Your task to perform on an android device: check data usage Image 0: 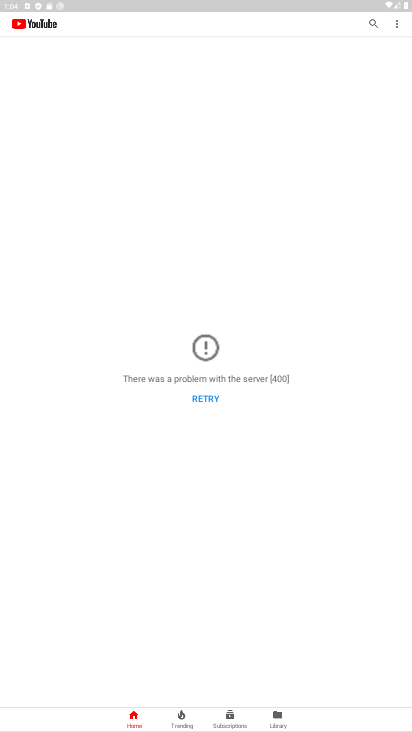
Step 0: press home button
Your task to perform on an android device: check data usage Image 1: 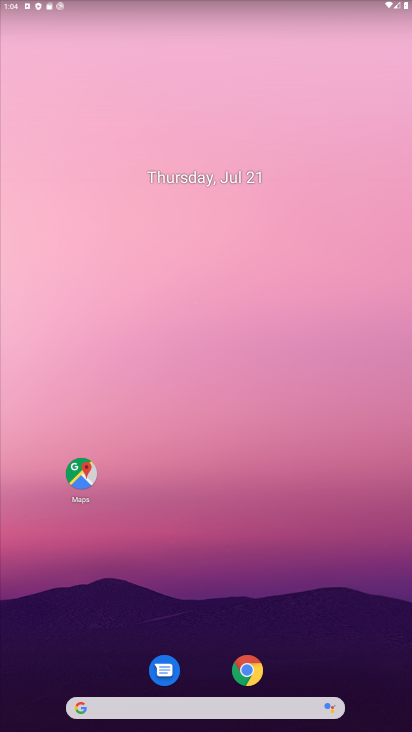
Step 1: drag from (202, 460) to (179, 115)
Your task to perform on an android device: check data usage Image 2: 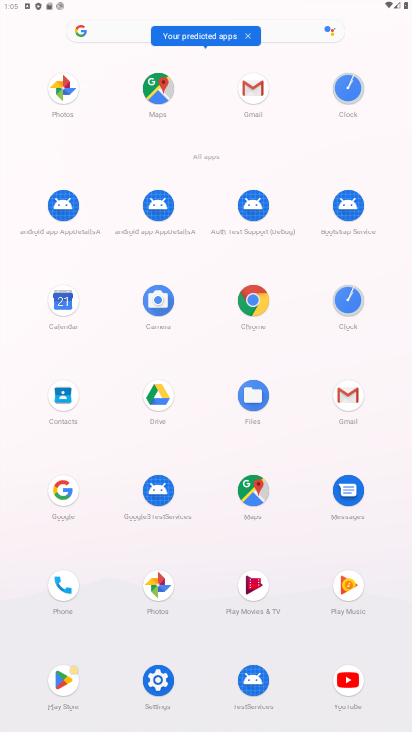
Step 2: click (152, 685)
Your task to perform on an android device: check data usage Image 3: 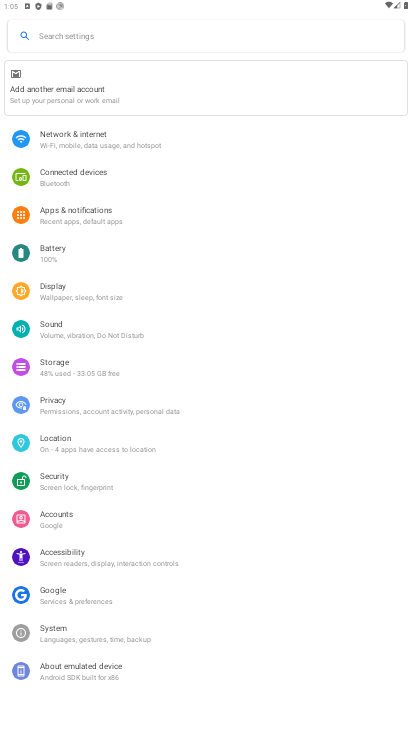
Step 3: click (155, 135)
Your task to perform on an android device: check data usage Image 4: 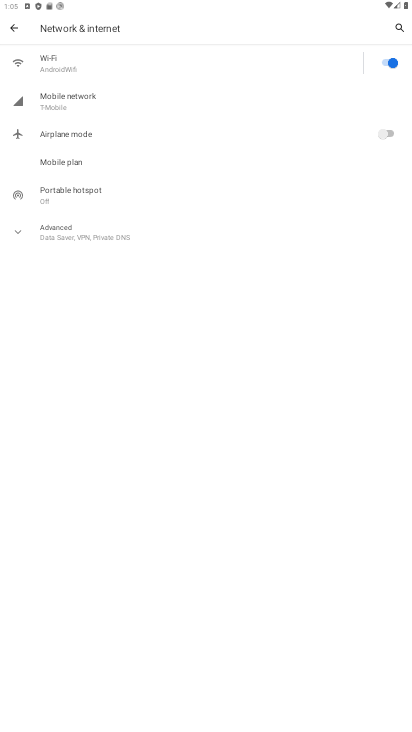
Step 4: click (95, 101)
Your task to perform on an android device: check data usage Image 5: 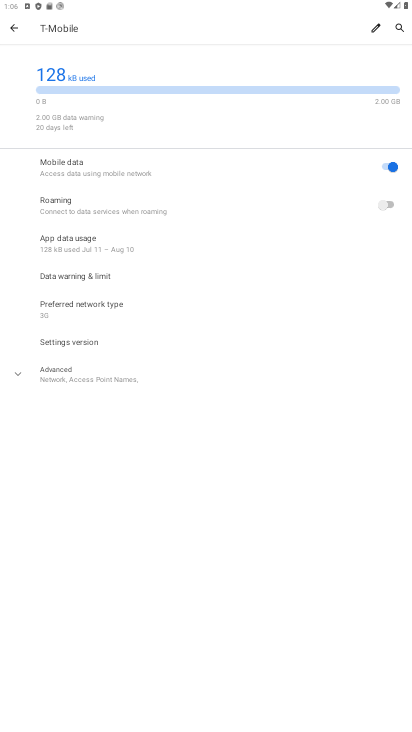
Step 5: click (116, 248)
Your task to perform on an android device: check data usage Image 6: 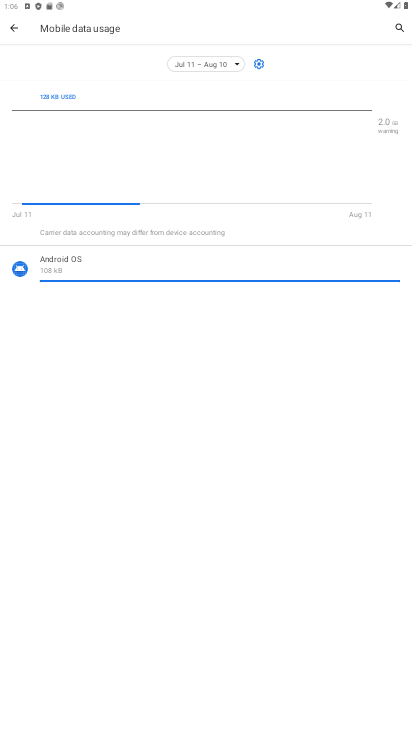
Step 6: task complete